Your task to perform on an android device: change your default location settings in chrome Image 0: 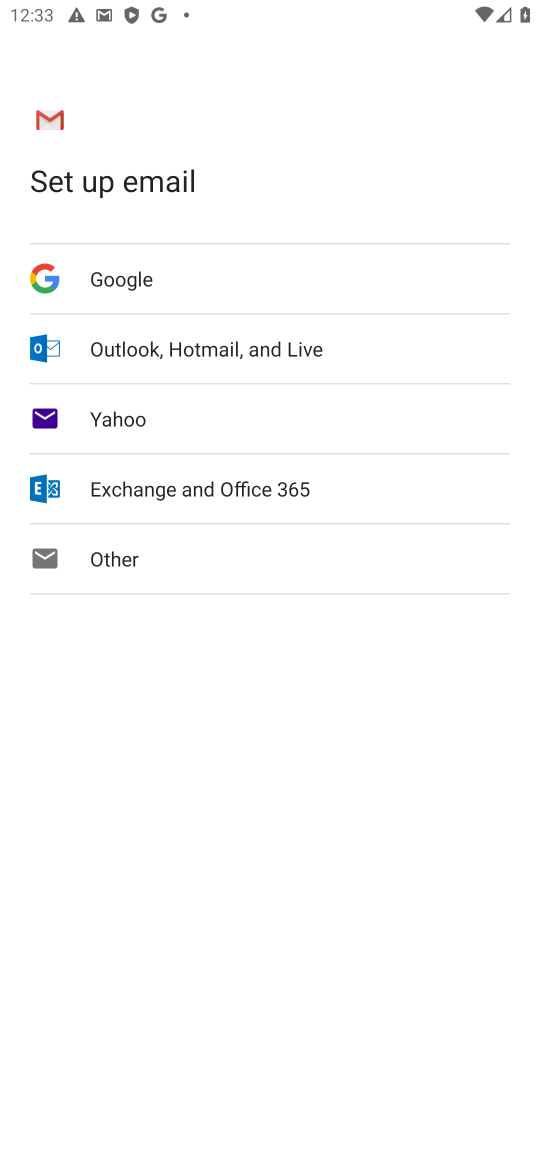
Step 0: task complete